Your task to perform on an android device: clear all cookies in the chrome app Image 0: 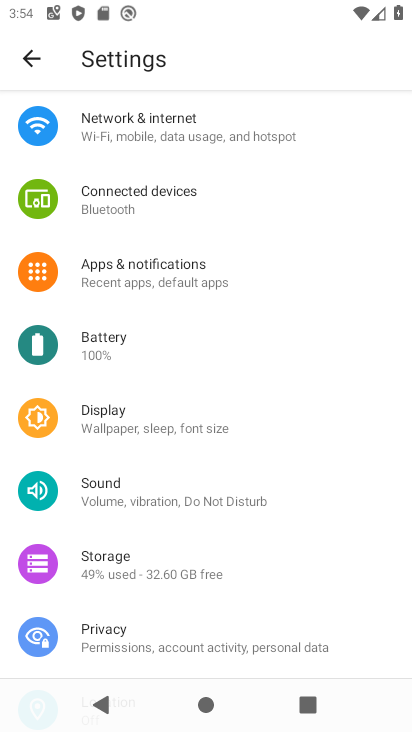
Step 0: drag from (185, 526) to (232, 158)
Your task to perform on an android device: clear all cookies in the chrome app Image 1: 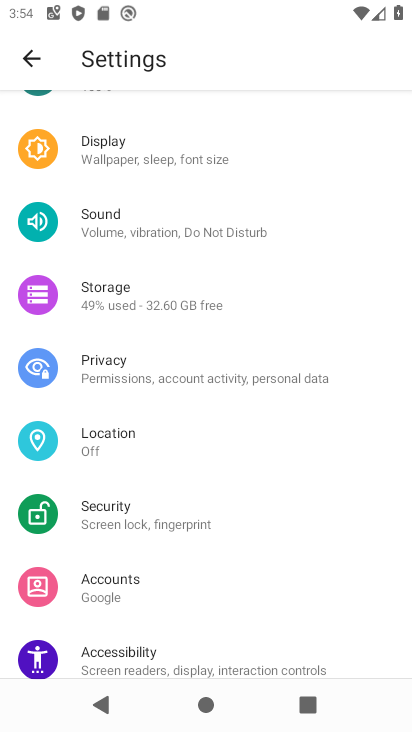
Step 1: drag from (175, 134) to (166, 605)
Your task to perform on an android device: clear all cookies in the chrome app Image 2: 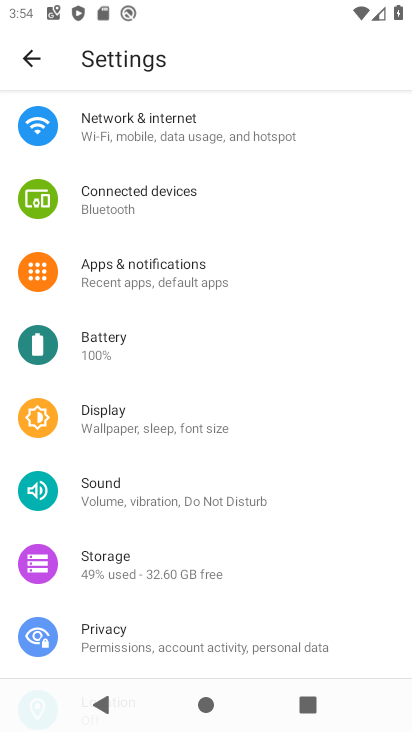
Step 2: press home button
Your task to perform on an android device: clear all cookies in the chrome app Image 3: 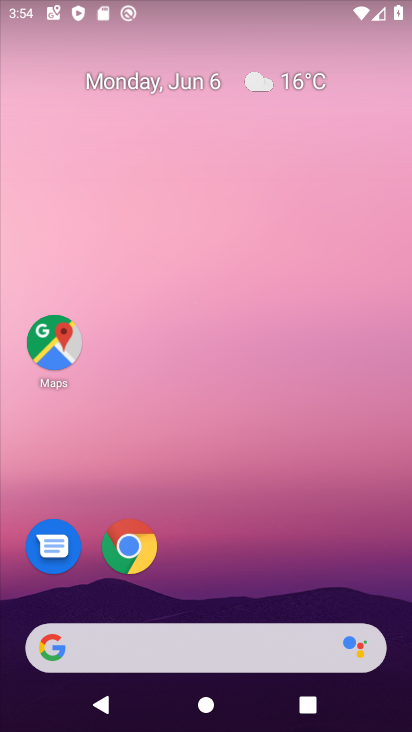
Step 3: drag from (323, 508) to (404, 11)
Your task to perform on an android device: clear all cookies in the chrome app Image 4: 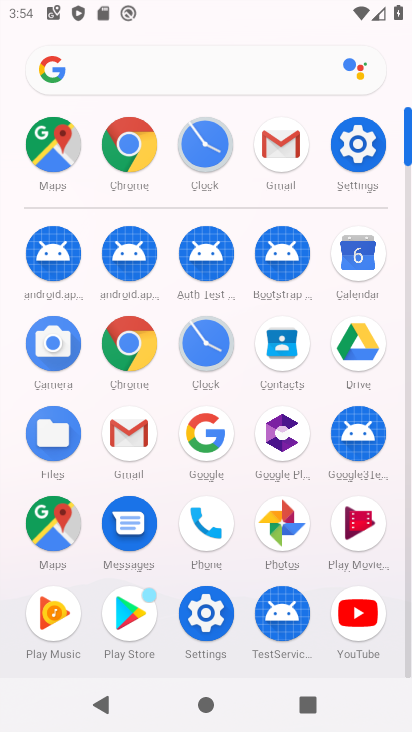
Step 4: click (142, 146)
Your task to perform on an android device: clear all cookies in the chrome app Image 5: 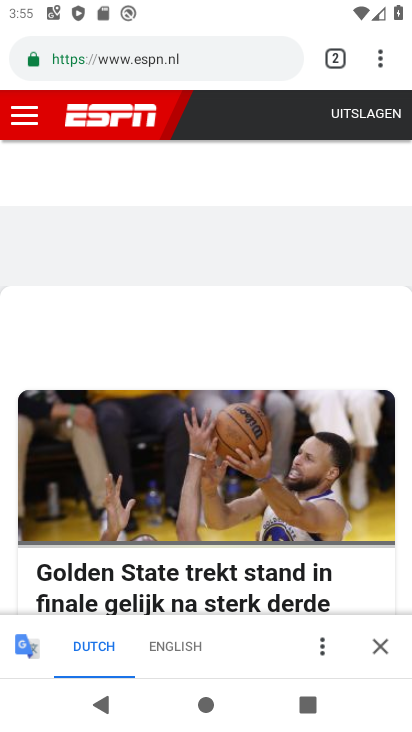
Step 5: task complete